Your task to perform on an android device: Set the phone to "Do not disturb". Image 0: 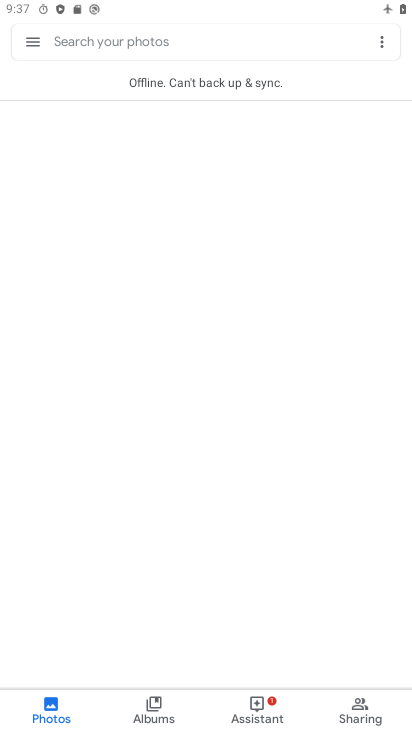
Step 0: press home button
Your task to perform on an android device: Set the phone to "Do not disturb". Image 1: 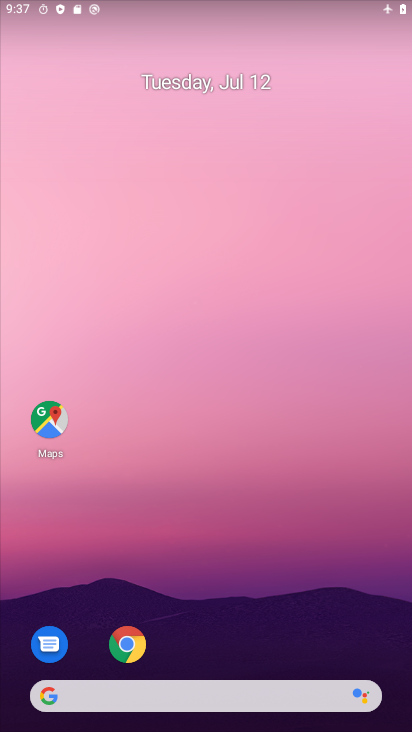
Step 1: drag from (208, 649) to (198, 219)
Your task to perform on an android device: Set the phone to "Do not disturb". Image 2: 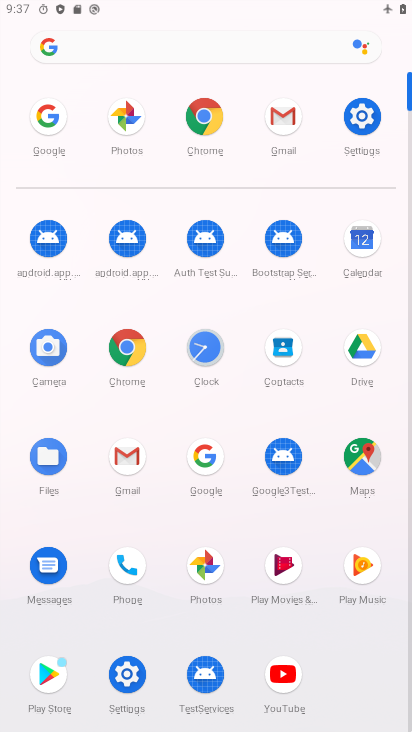
Step 2: click (378, 126)
Your task to perform on an android device: Set the phone to "Do not disturb". Image 3: 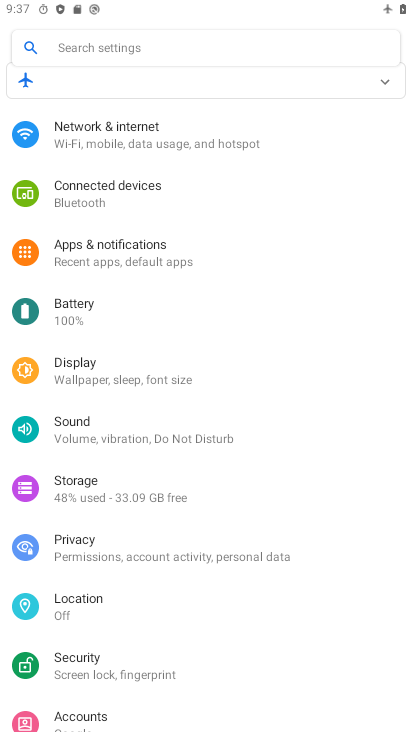
Step 3: click (105, 435)
Your task to perform on an android device: Set the phone to "Do not disturb". Image 4: 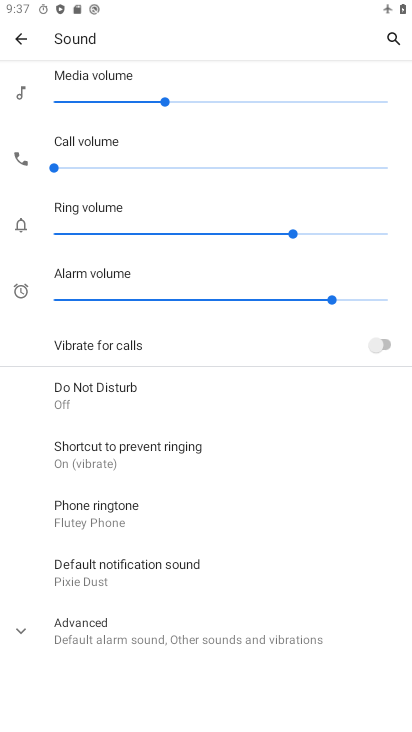
Step 4: click (115, 403)
Your task to perform on an android device: Set the phone to "Do not disturb". Image 5: 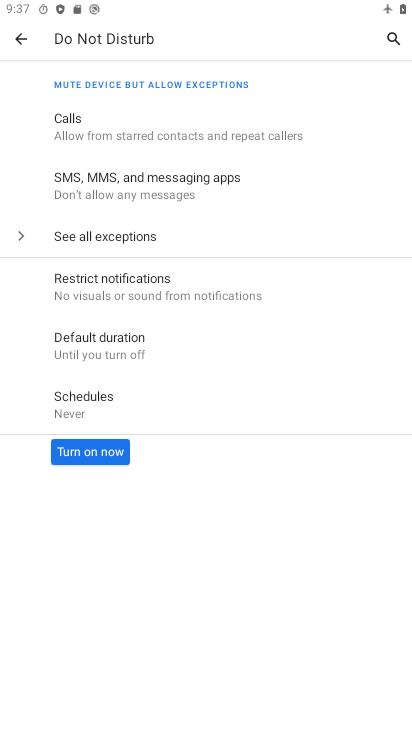
Step 5: click (102, 438)
Your task to perform on an android device: Set the phone to "Do not disturb". Image 6: 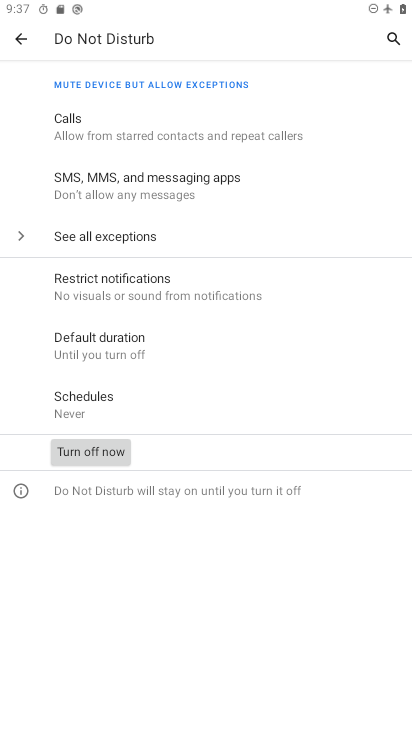
Step 6: task complete